Your task to perform on an android device: Do I have any events tomorrow? Image 0: 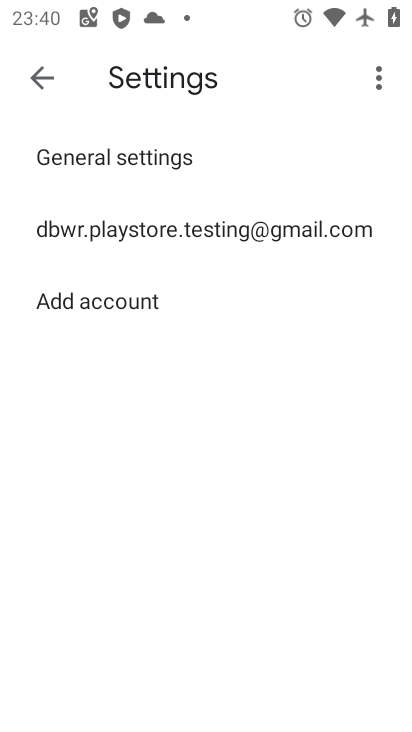
Step 0: press home button
Your task to perform on an android device: Do I have any events tomorrow? Image 1: 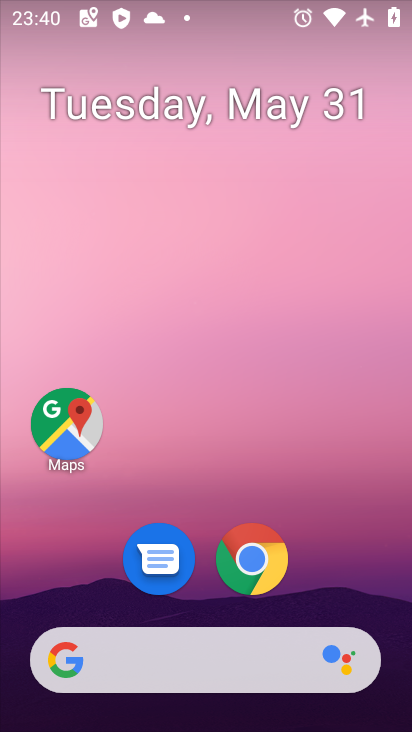
Step 1: drag from (310, 580) to (297, 256)
Your task to perform on an android device: Do I have any events tomorrow? Image 2: 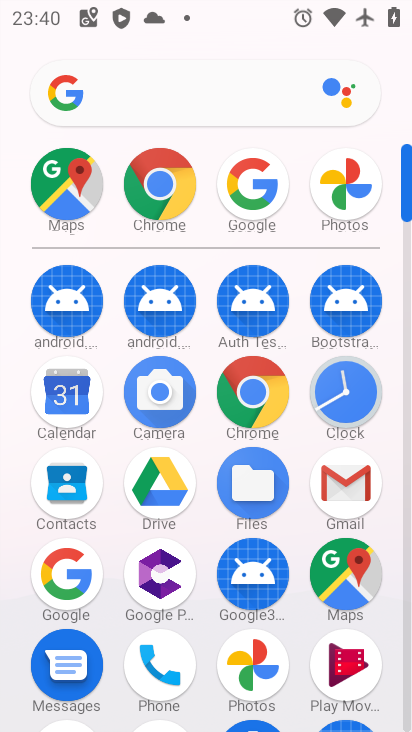
Step 2: click (64, 388)
Your task to perform on an android device: Do I have any events tomorrow? Image 3: 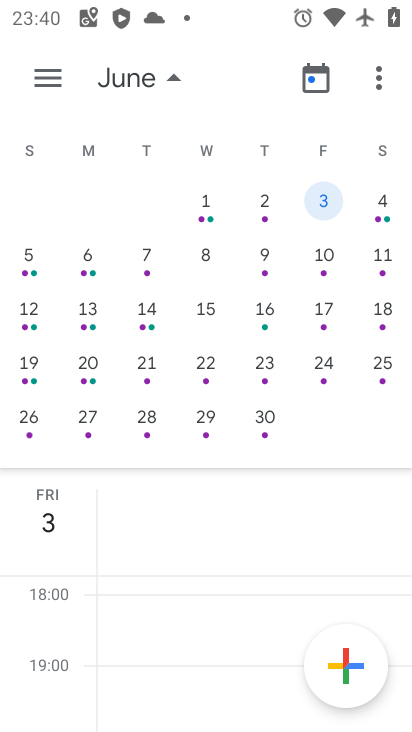
Step 3: click (200, 205)
Your task to perform on an android device: Do I have any events tomorrow? Image 4: 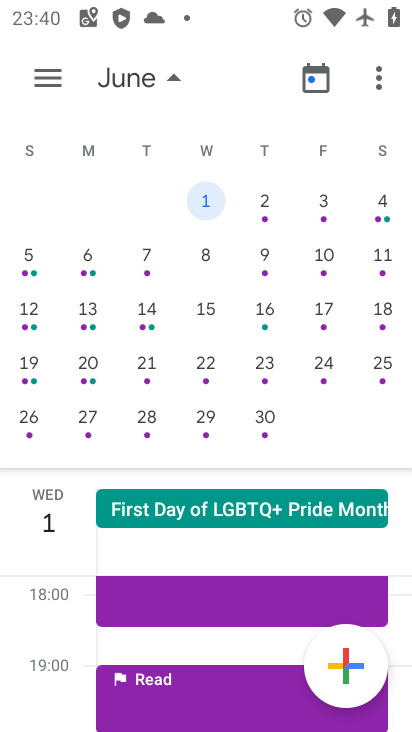
Step 4: task complete